Your task to perform on an android device: turn on translation in the chrome app Image 0: 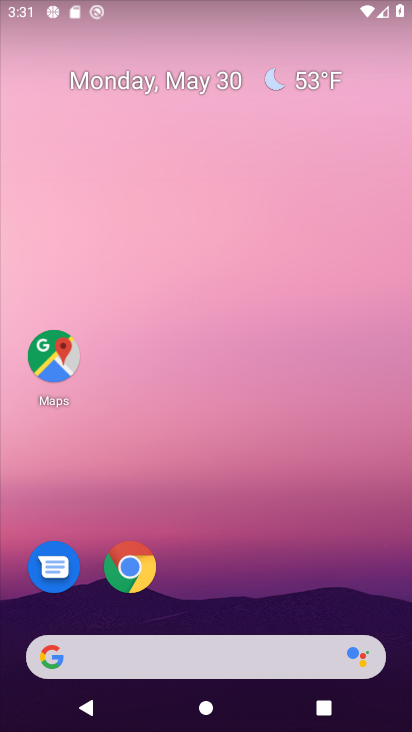
Step 0: drag from (274, 727) to (338, 0)
Your task to perform on an android device: turn on translation in the chrome app Image 1: 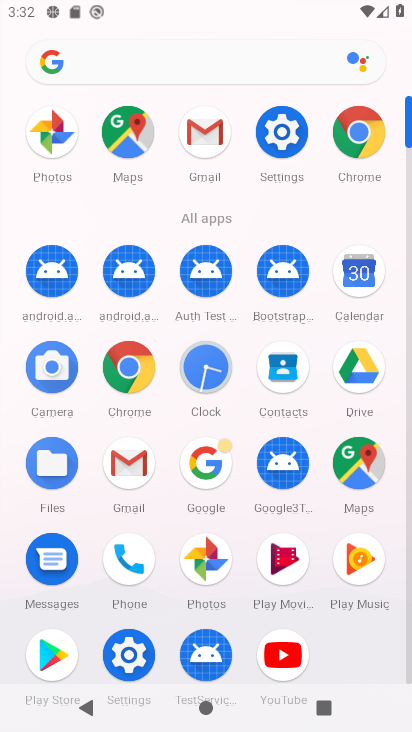
Step 1: click (133, 367)
Your task to perform on an android device: turn on translation in the chrome app Image 2: 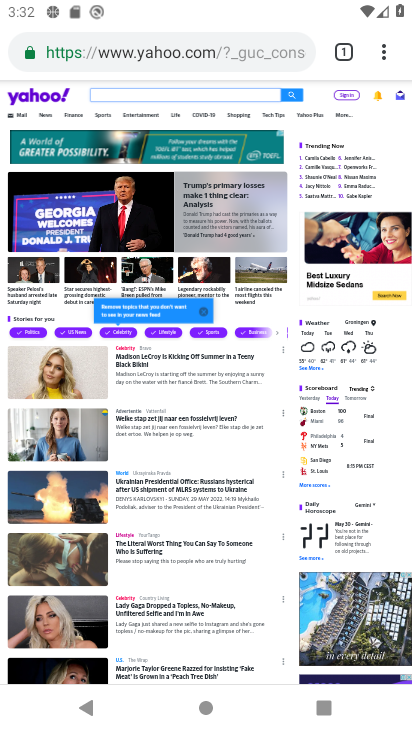
Step 2: drag from (384, 50) to (227, 609)
Your task to perform on an android device: turn on translation in the chrome app Image 3: 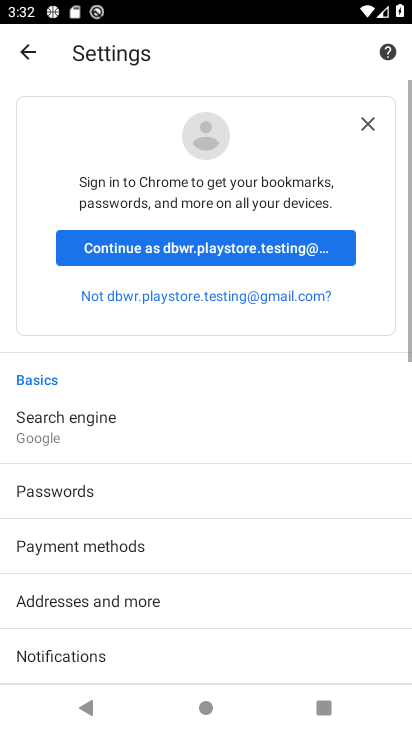
Step 3: drag from (230, 628) to (251, 32)
Your task to perform on an android device: turn on translation in the chrome app Image 4: 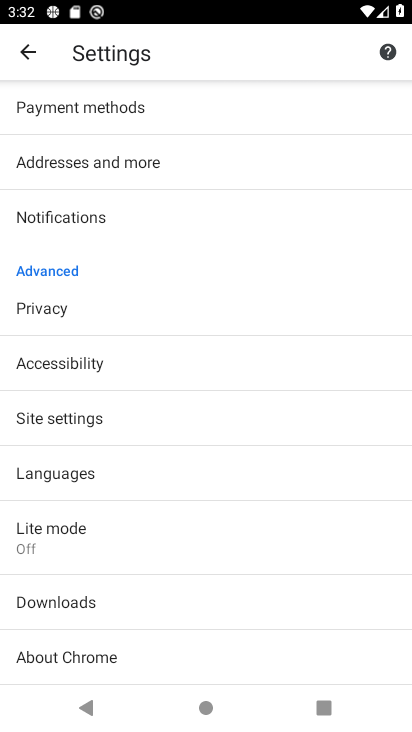
Step 4: click (137, 446)
Your task to perform on an android device: turn on translation in the chrome app Image 5: 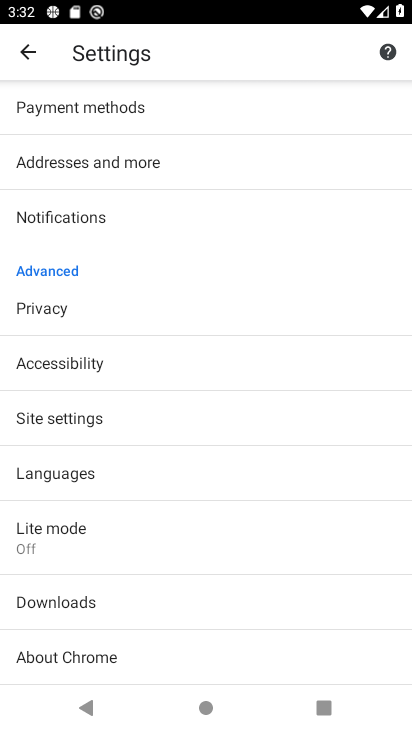
Step 5: click (98, 467)
Your task to perform on an android device: turn on translation in the chrome app Image 6: 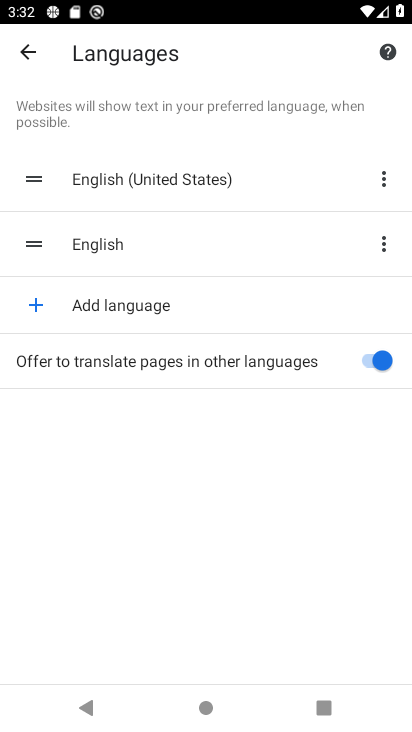
Step 6: task complete